Your task to perform on an android device: When is my next meeting? Image 0: 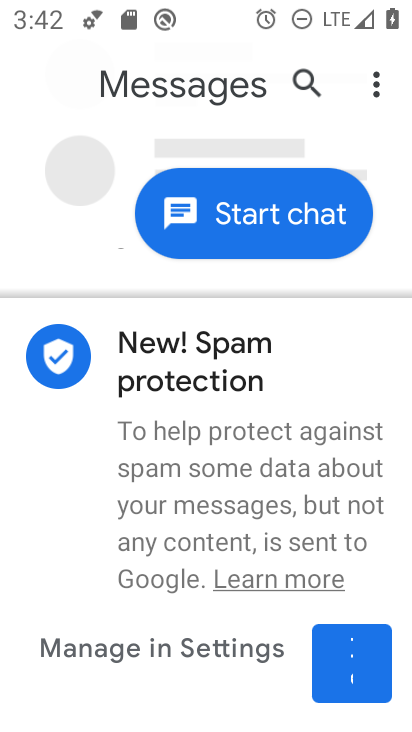
Step 0: press home button
Your task to perform on an android device: When is my next meeting? Image 1: 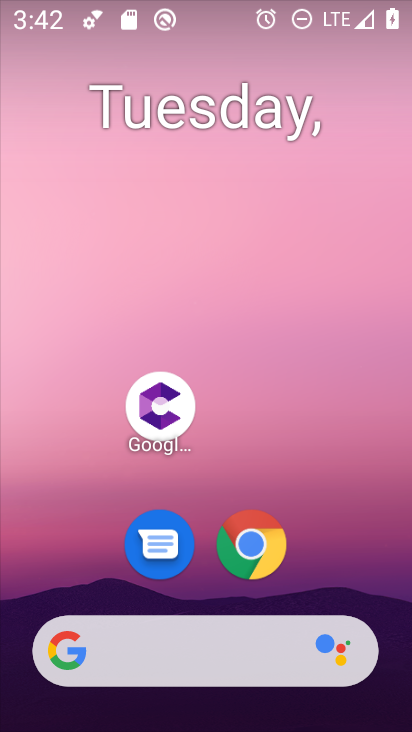
Step 1: drag from (356, 578) to (340, 130)
Your task to perform on an android device: When is my next meeting? Image 2: 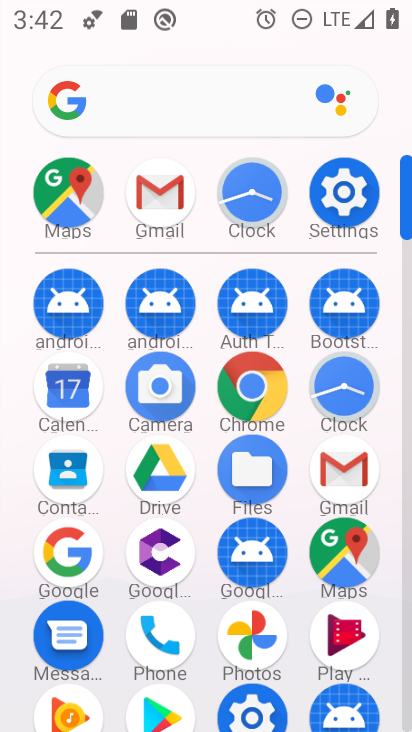
Step 2: click (72, 402)
Your task to perform on an android device: When is my next meeting? Image 3: 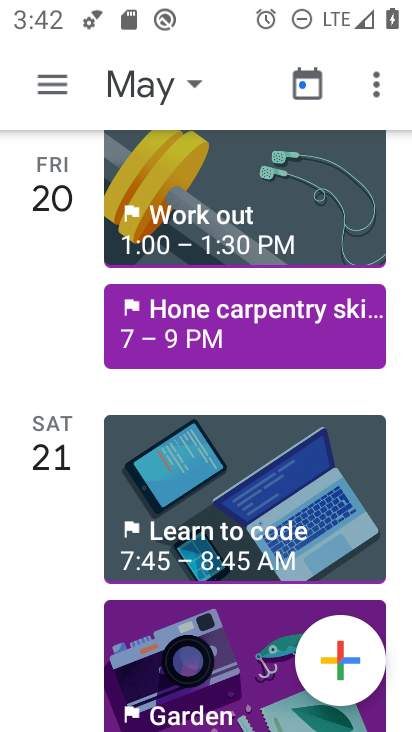
Step 3: drag from (216, 195) to (176, 409)
Your task to perform on an android device: When is my next meeting? Image 4: 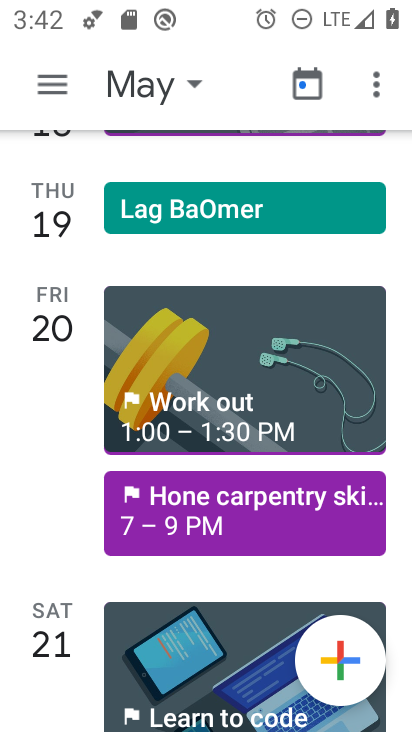
Step 4: drag from (246, 196) to (241, 363)
Your task to perform on an android device: When is my next meeting? Image 5: 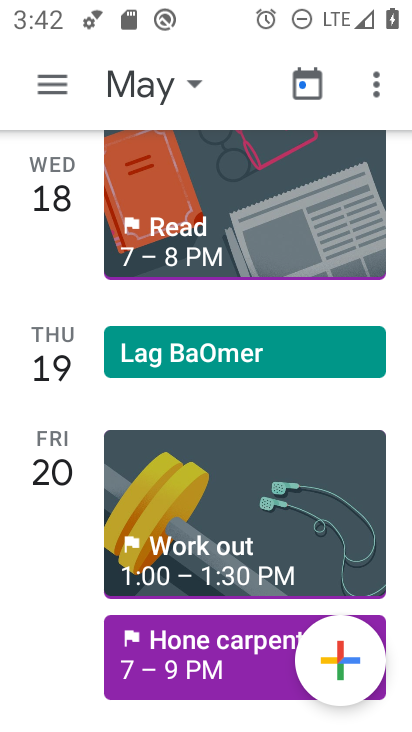
Step 5: drag from (269, 172) to (249, 354)
Your task to perform on an android device: When is my next meeting? Image 6: 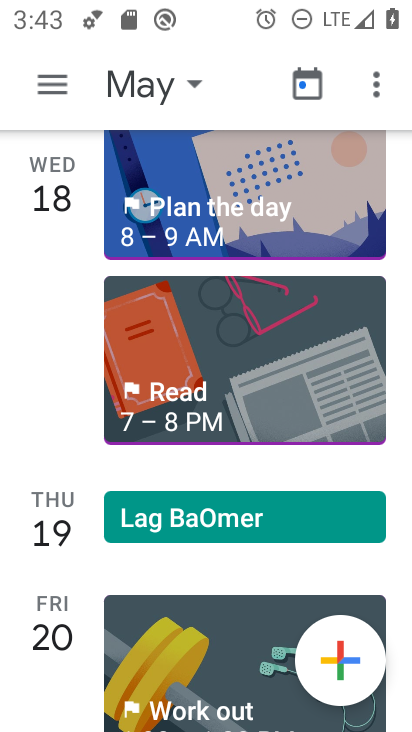
Step 6: drag from (292, 207) to (265, 366)
Your task to perform on an android device: When is my next meeting? Image 7: 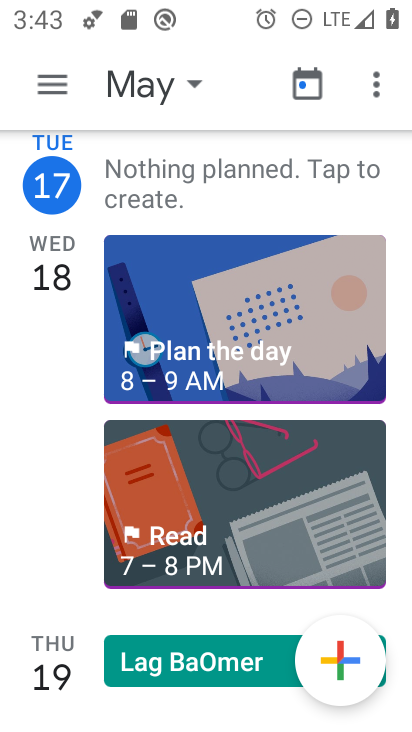
Step 7: drag from (286, 242) to (256, 421)
Your task to perform on an android device: When is my next meeting? Image 8: 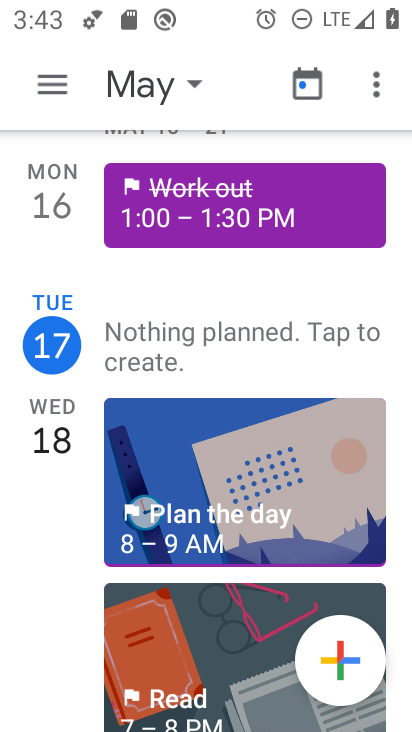
Step 8: drag from (354, 215) to (329, 376)
Your task to perform on an android device: When is my next meeting? Image 9: 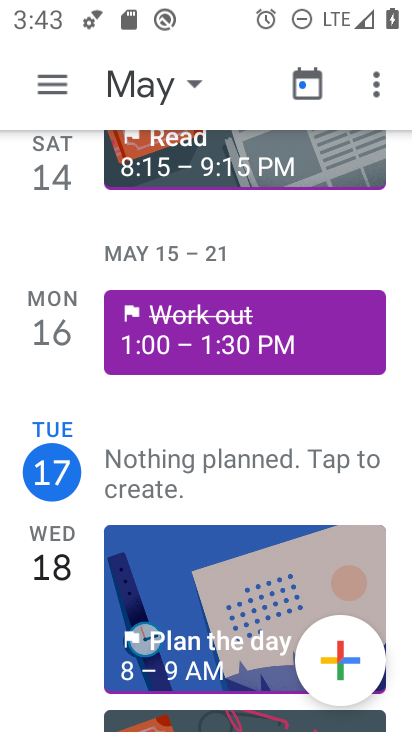
Step 9: drag from (310, 257) to (293, 380)
Your task to perform on an android device: When is my next meeting? Image 10: 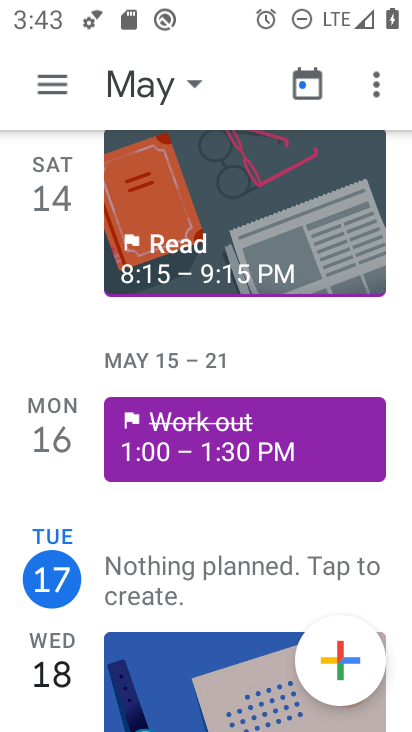
Step 10: drag from (339, 199) to (293, 398)
Your task to perform on an android device: When is my next meeting? Image 11: 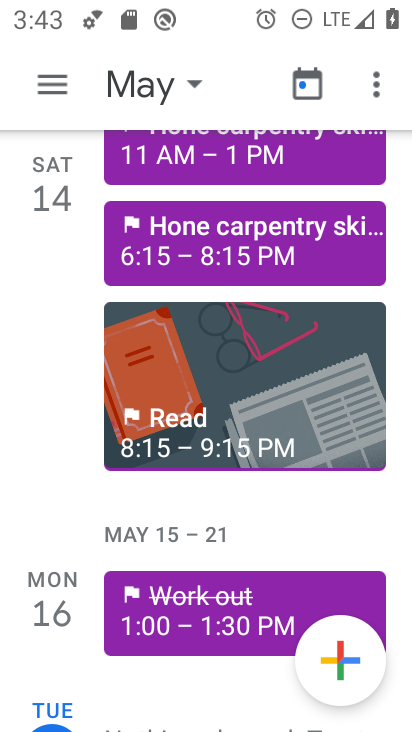
Step 11: drag from (222, 590) to (252, 277)
Your task to perform on an android device: When is my next meeting? Image 12: 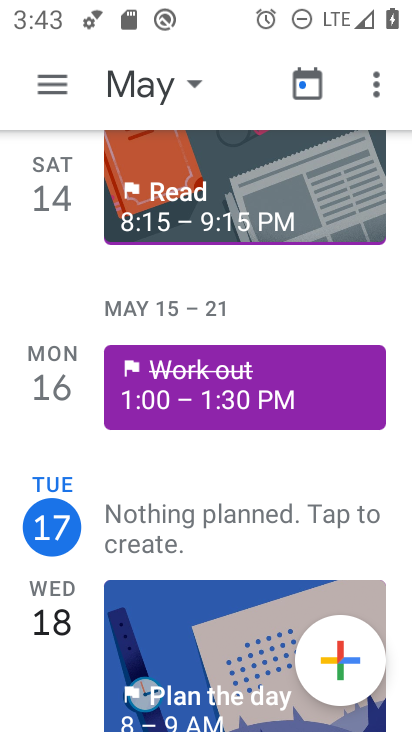
Step 12: click (212, 624)
Your task to perform on an android device: When is my next meeting? Image 13: 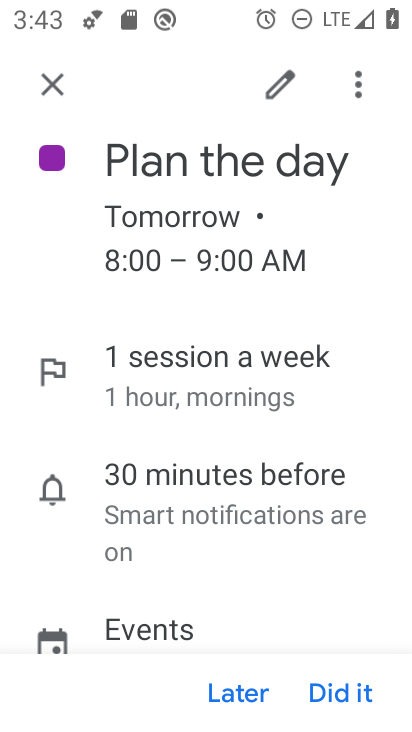
Step 13: task complete